Your task to perform on an android device: change the upload size in google photos Image 0: 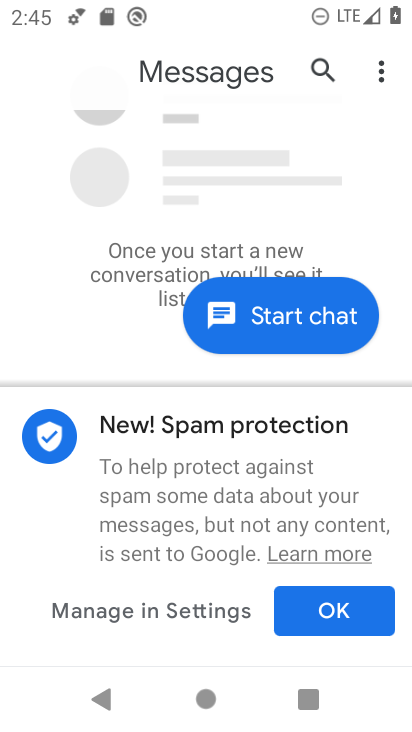
Step 0: press home button
Your task to perform on an android device: change the upload size in google photos Image 1: 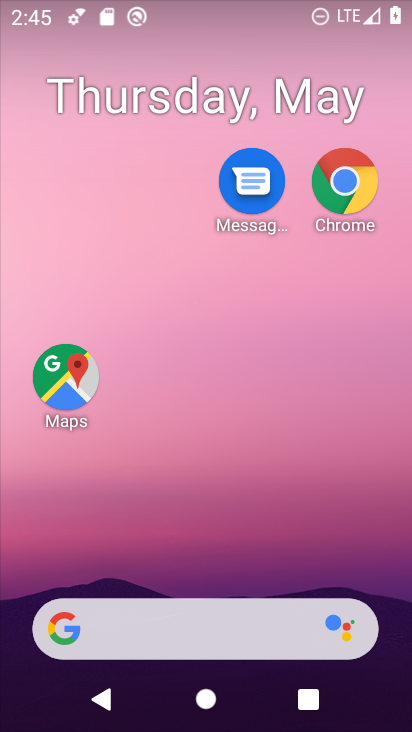
Step 1: drag from (332, 660) to (239, 92)
Your task to perform on an android device: change the upload size in google photos Image 2: 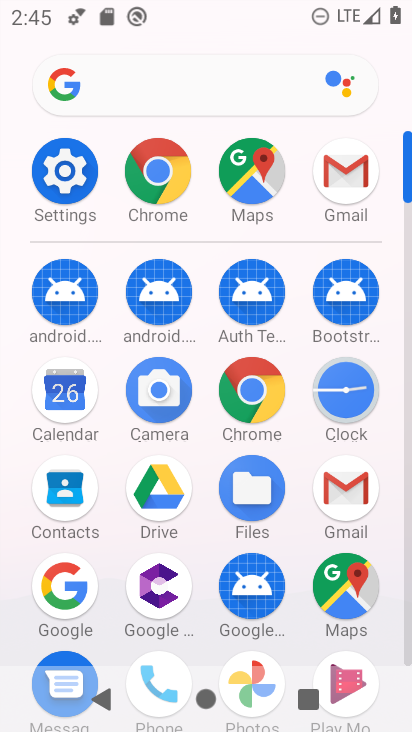
Step 2: drag from (282, 641) to (336, 393)
Your task to perform on an android device: change the upload size in google photos Image 3: 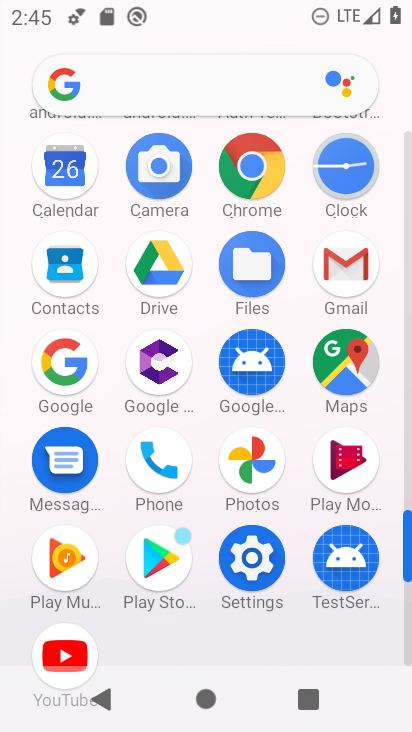
Step 3: click (267, 480)
Your task to perform on an android device: change the upload size in google photos Image 4: 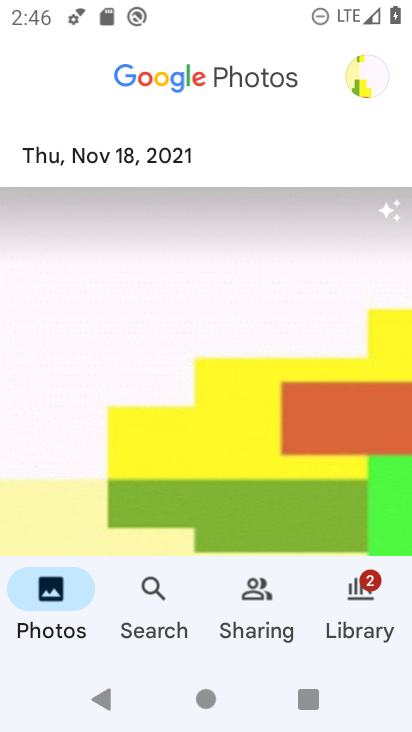
Step 4: click (366, 82)
Your task to perform on an android device: change the upload size in google photos Image 5: 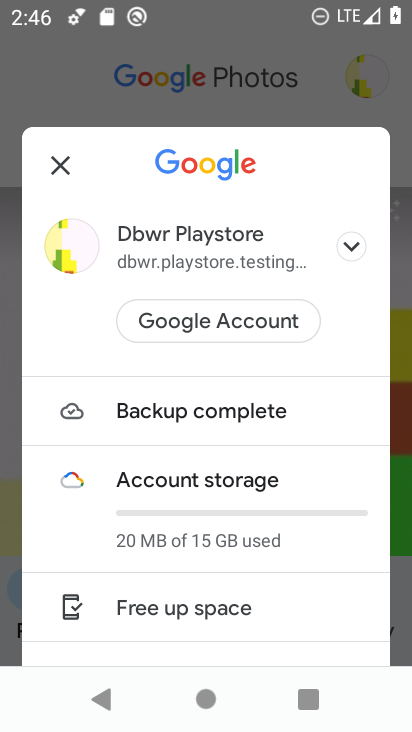
Step 5: drag from (288, 610) to (321, 114)
Your task to perform on an android device: change the upload size in google photos Image 6: 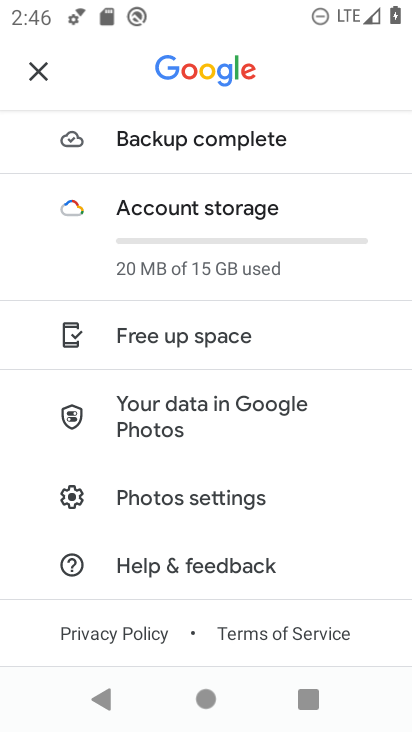
Step 6: click (195, 496)
Your task to perform on an android device: change the upload size in google photos Image 7: 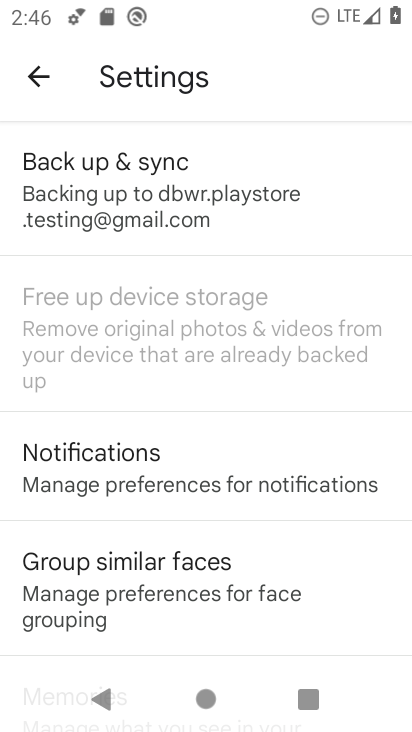
Step 7: click (244, 243)
Your task to perform on an android device: change the upload size in google photos Image 8: 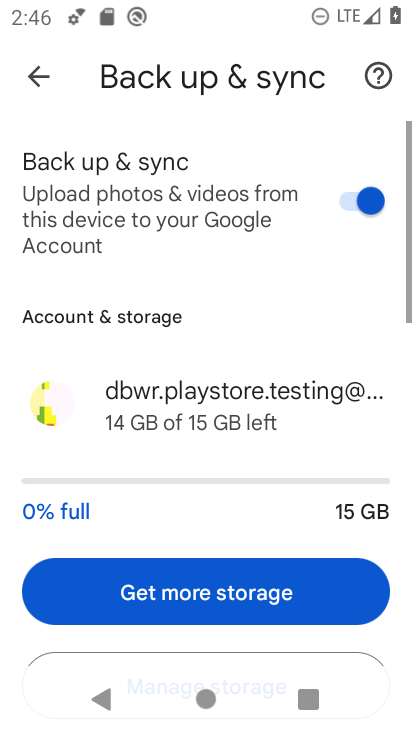
Step 8: drag from (251, 502) to (301, 39)
Your task to perform on an android device: change the upload size in google photos Image 9: 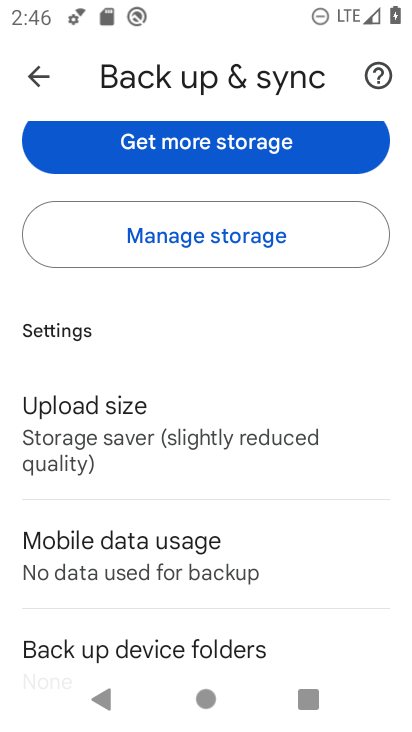
Step 9: click (192, 455)
Your task to perform on an android device: change the upload size in google photos Image 10: 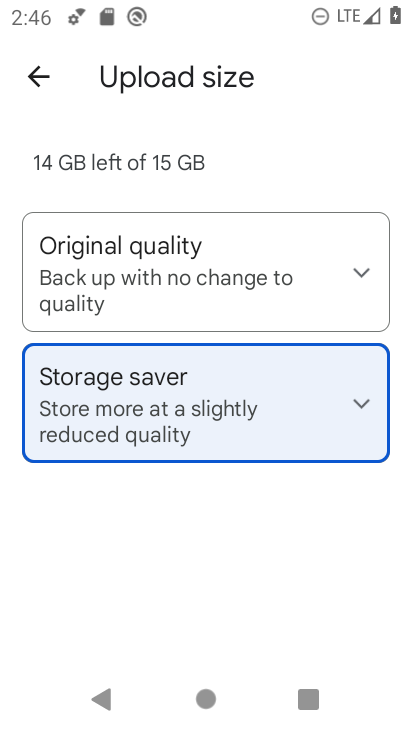
Step 10: click (251, 273)
Your task to perform on an android device: change the upload size in google photos Image 11: 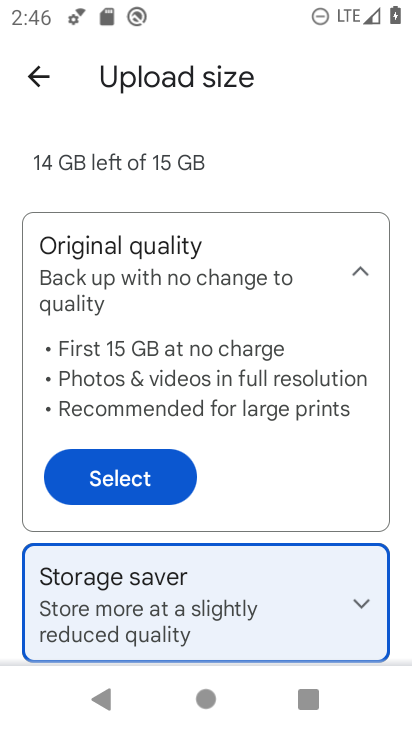
Step 11: task complete